Your task to perform on an android device: open sync settings in chrome Image 0: 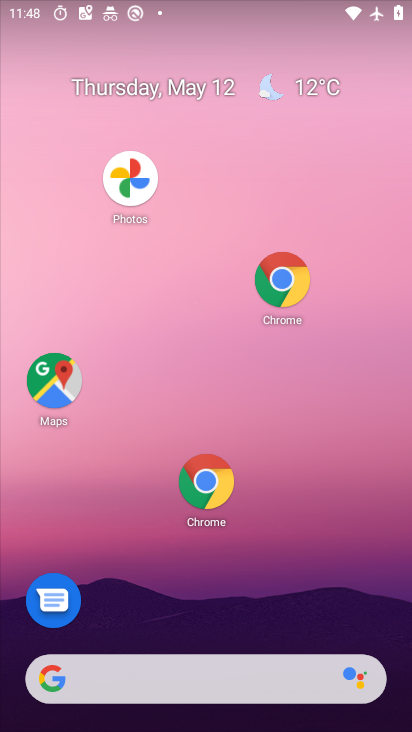
Step 0: drag from (222, 435) to (196, 12)
Your task to perform on an android device: open sync settings in chrome Image 1: 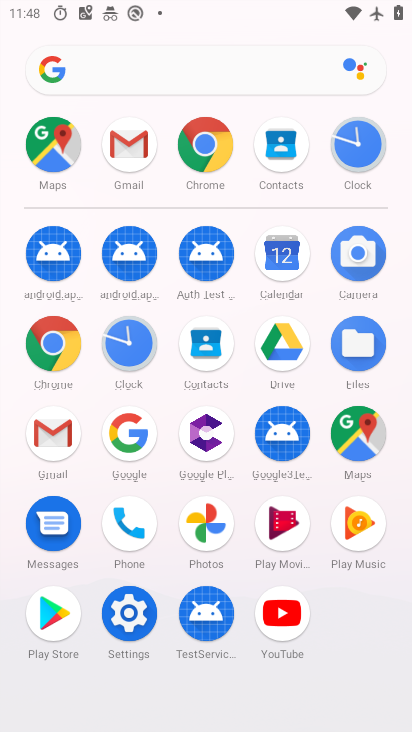
Step 1: click (207, 140)
Your task to perform on an android device: open sync settings in chrome Image 2: 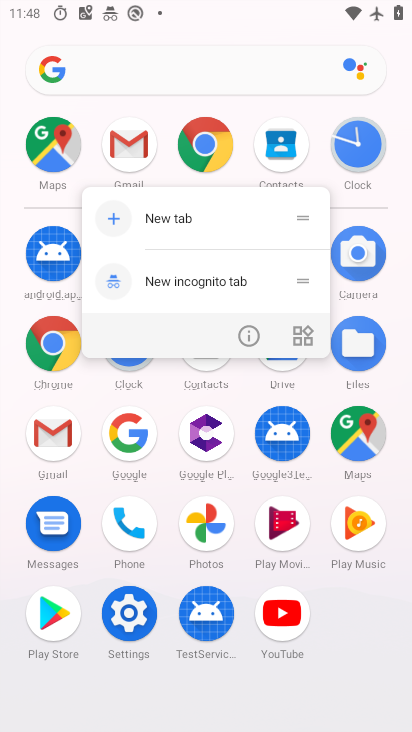
Step 2: click (207, 140)
Your task to perform on an android device: open sync settings in chrome Image 3: 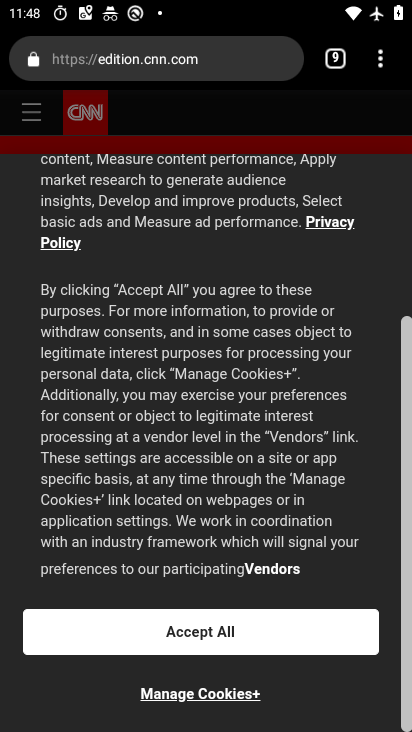
Step 3: click (391, 57)
Your task to perform on an android device: open sync settings in chrome Image 4: 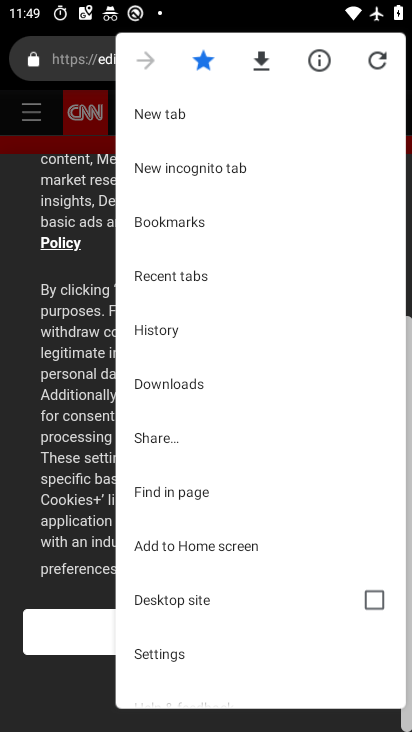
Step 4: drag from (224, 396) to (195, 100)
Your task to perform on an android device: open sync settings in chrome Image 5: 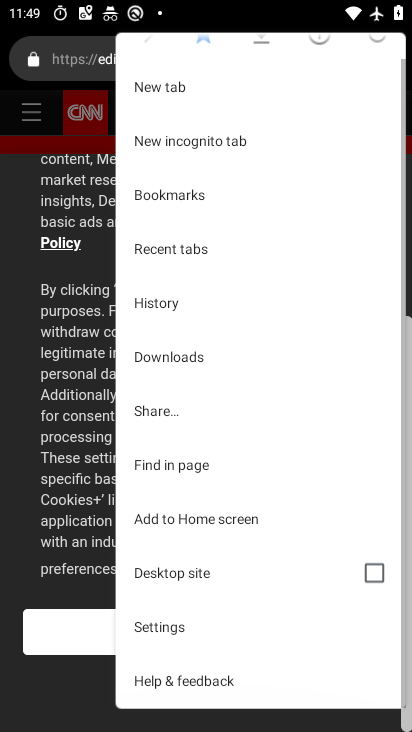
Step 5: drag from (218, 484) to (184, 22)
Your task to perform on an android device: open sync settings in chrome Image 6: 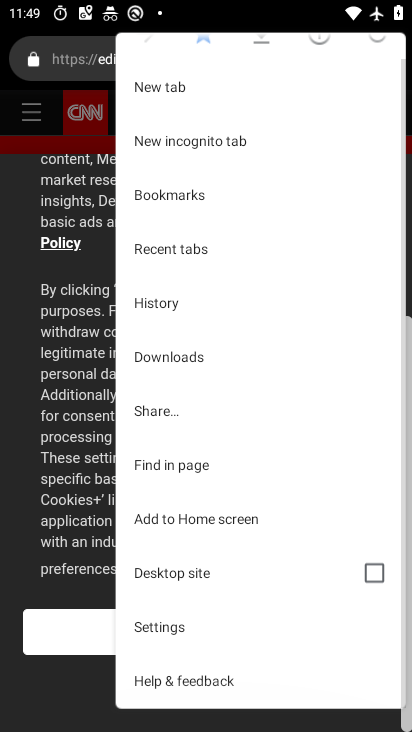
Step 6: drag from (232, 389) to (191, 39)
Your task to perform on an android device: open sync settings in chrome Image 7: 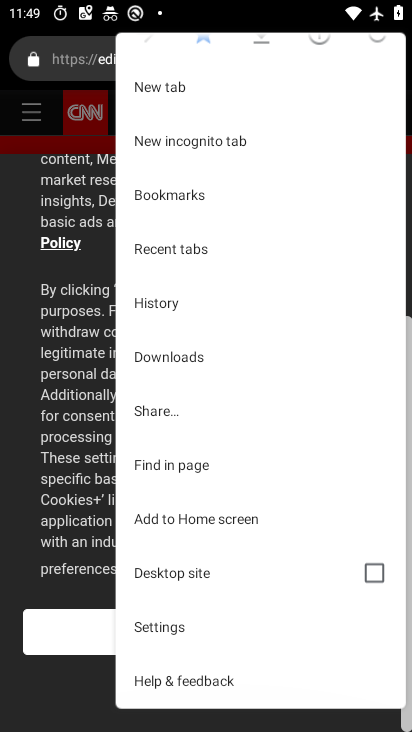
Step 7: drag from (181, 550) to (174, 387)
Your task to perform on an android device: open sync settings in chrome Image 8: 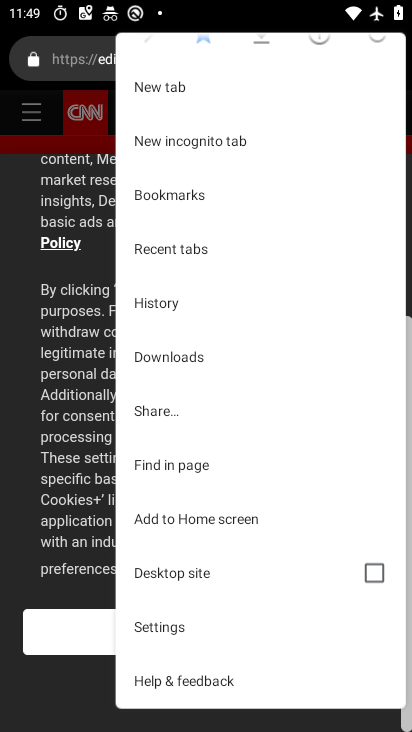
Step 8: click (164, 625)
Your task to perform on an android device: open sync settings in chrome Image 9: 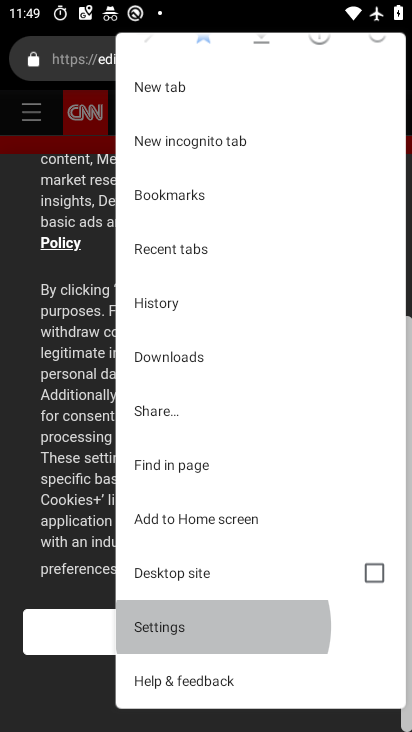
Step 9: click (164, 625)
Your task to perform on an android device: open sync settings in chrome Image 10: 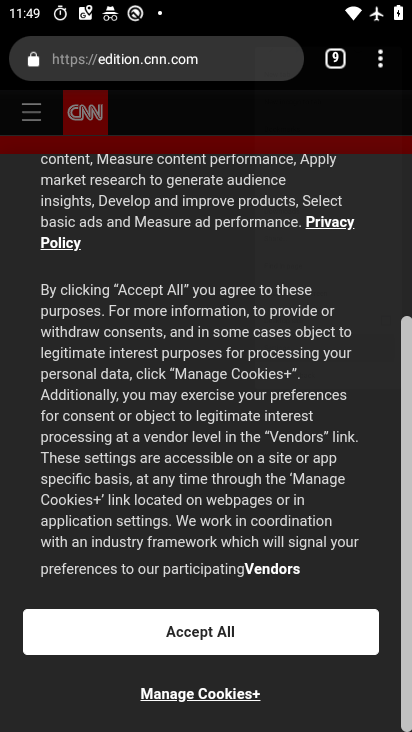
Step 10: click (164, 627)
Your task to perform on an android device: open sync settings in chrome Image 11: 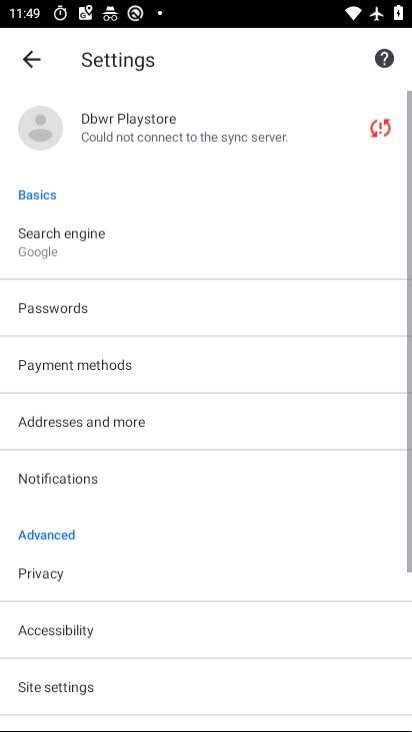
Step 11: click (163, 627)
Your task to perform on an android device: open sync settings in chrome Image 12: 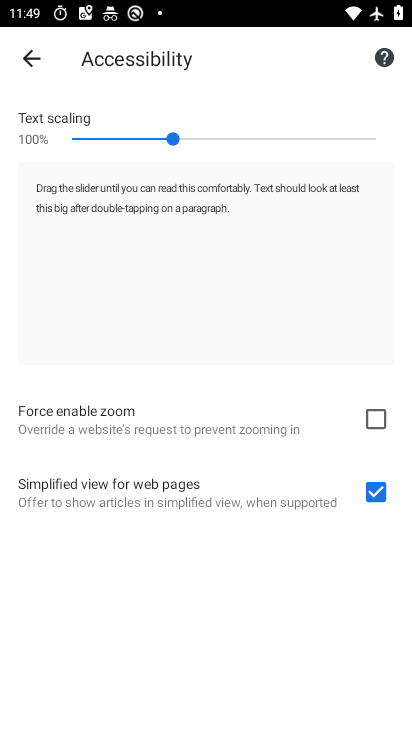
Step 12: click (30, 57)
Your task to perform on an android device: open sync settings in chrome Image 13: 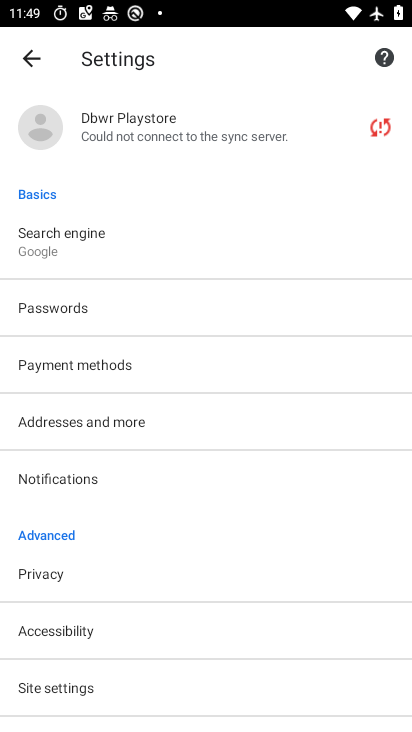
Step 13: click (48, 687)
Your task to perform on an android device: open sync settings in chrome Image 14: 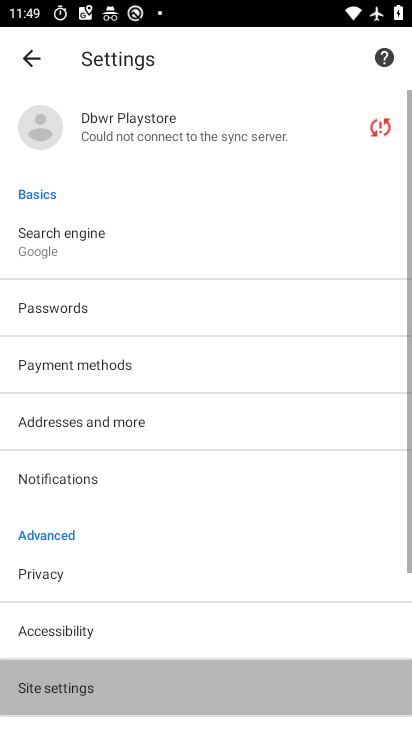
Step 14: click (48, 687)
Your task to perform on an android device: open sync settings in chrome Image 15: 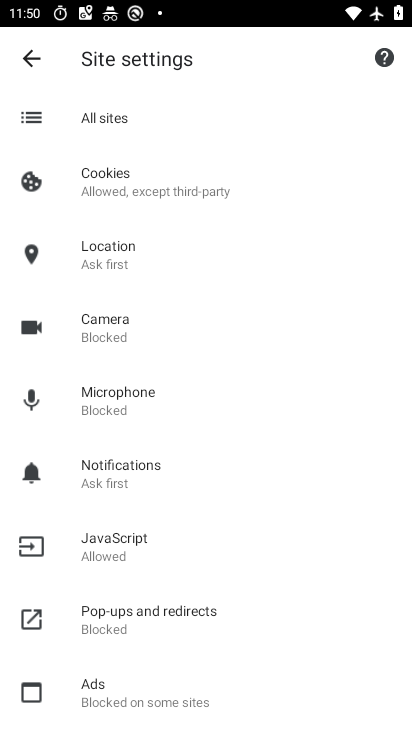
Step 15: drag from (129, 573) to (112, 285)
Your task to perform on an android device: open sync settings in chrome Image 16: 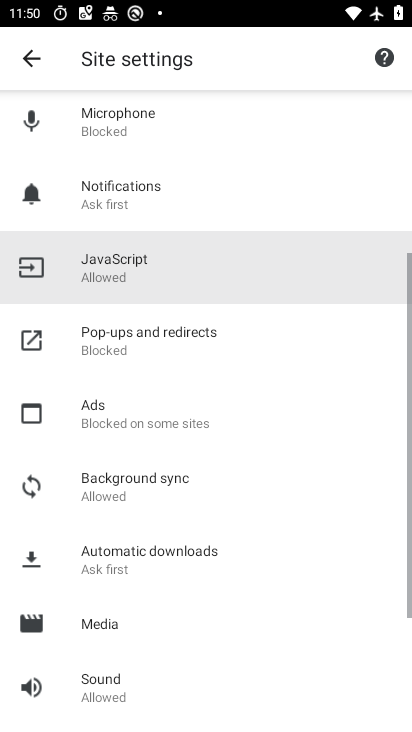
Step 16: drag from (119, 547) to (134, 218)
Your task to perform on an android device: open sync settings in chrome Image 17: 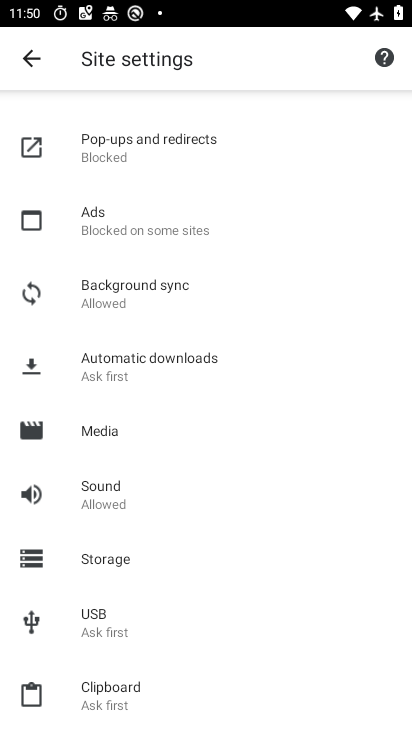
Step 17: click (108, 291)
Your task to perform on an android device: open sync settings in chrome Image 18: 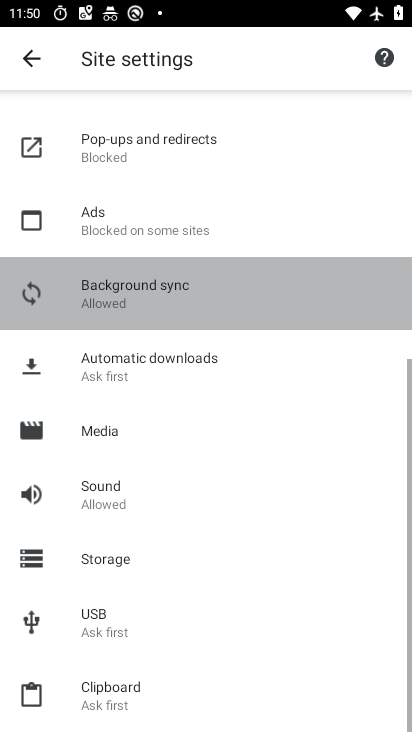
Step 18: click (109, 290)
Your task to perform on an android device: open sync settings in chrome Image 19: 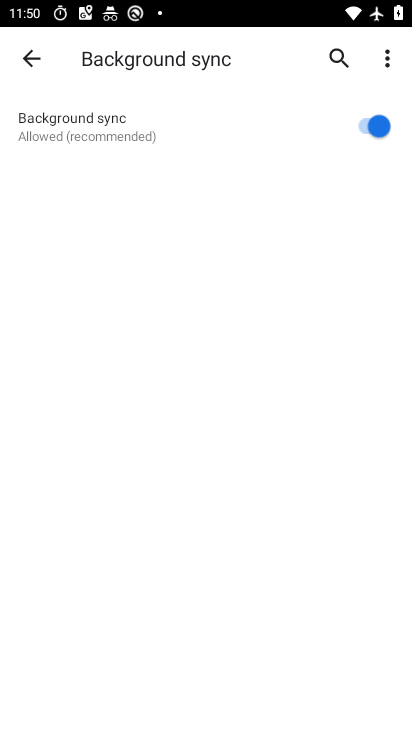
Step 19: task complete